Your task to perform on an android device: Open calendar and show me the first week of next month Image 0: 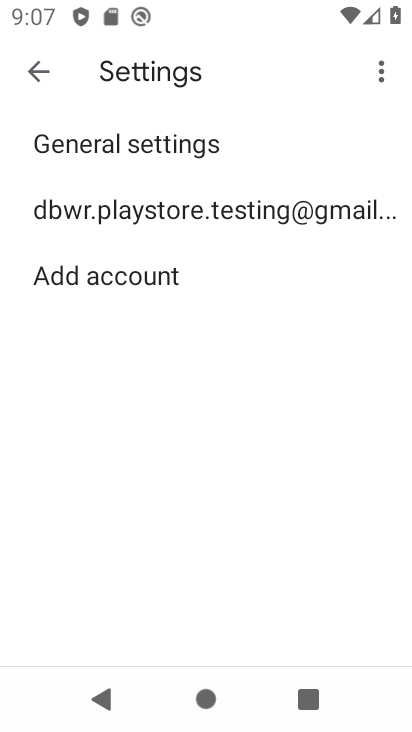
Step 0: press home button
Your task to perform on an android device: Open calendar and show me the first week of next month Image 1: 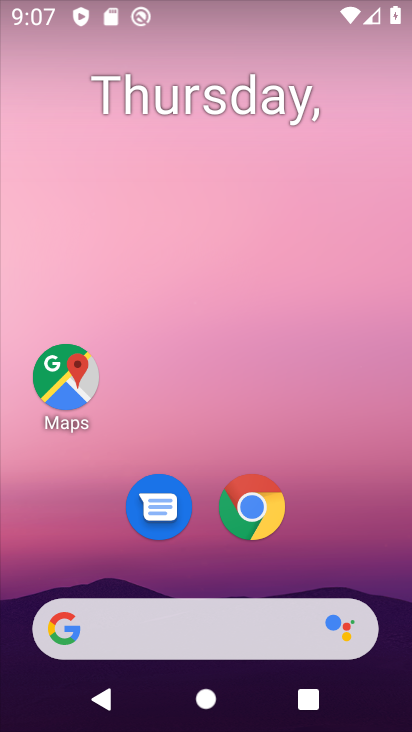
Step 1: drag from (202, 584) to (148, 0)
Your task to perform on an android device: Open calendar and show me the first week of next month Image 2: 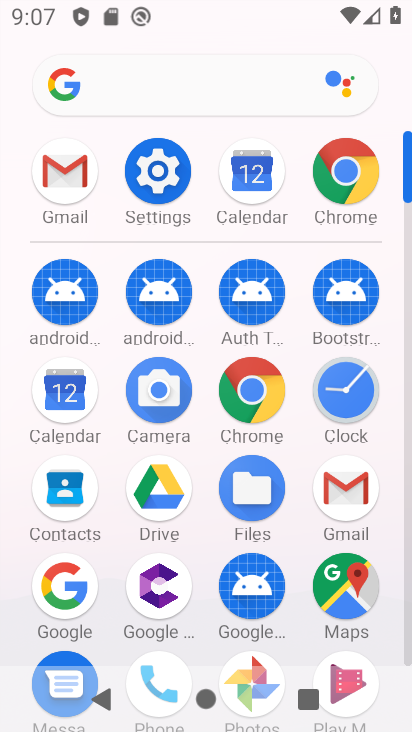
Step 2: click (83, 400)
Your task to perform on an android device: Open calendar and show me the first week of next month Image 3: 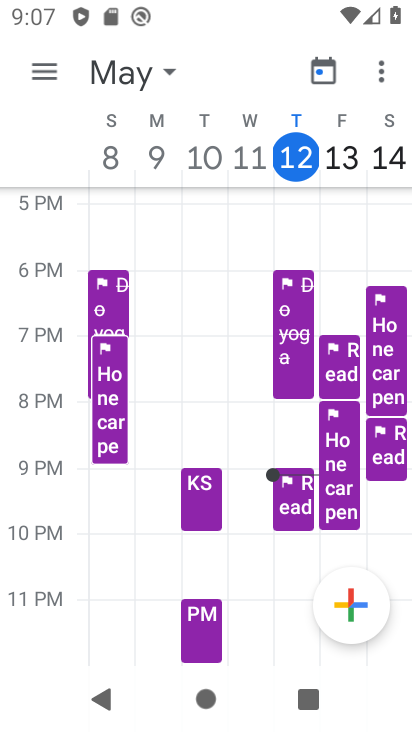
Step 3: task complete